Your task to perform on an android device: Search for Mexican restaurants on Maps Image 0: 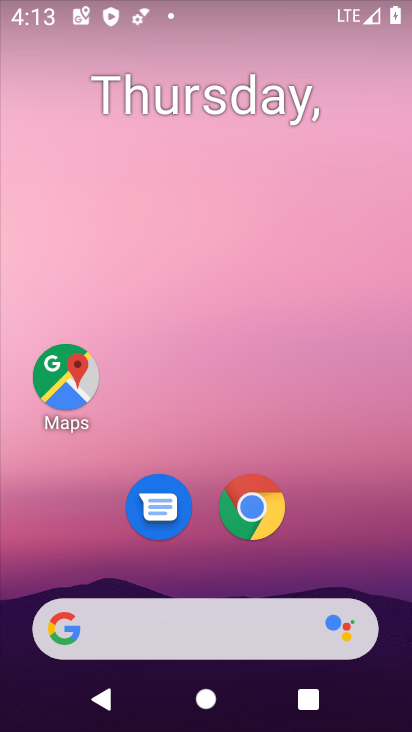
Step 0: press home button
Your task to perform on an android device: Search for Mexican restaurants on Maps Image 1: 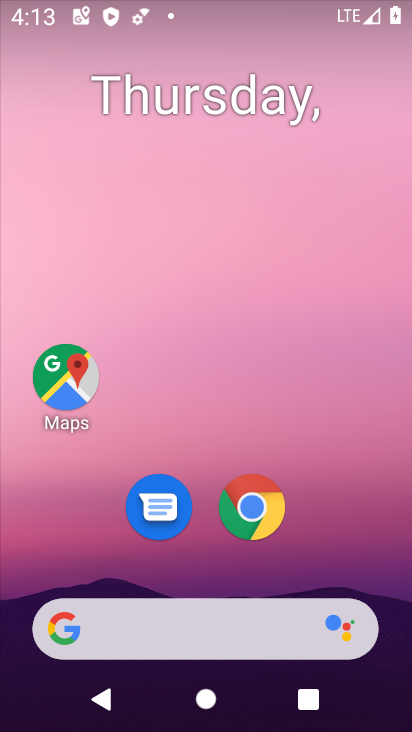
Step 1: click (51, 393)
Your task to perform on an android device: Search for Mexican restaurants on Maps Image 2: 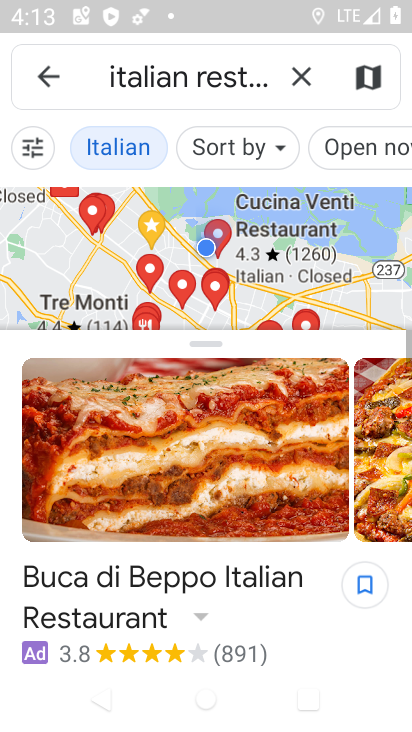
Step 2: click (52, 86)
Your task to perform on an android device: Search for Mexican restaurants on Maps Image 3: 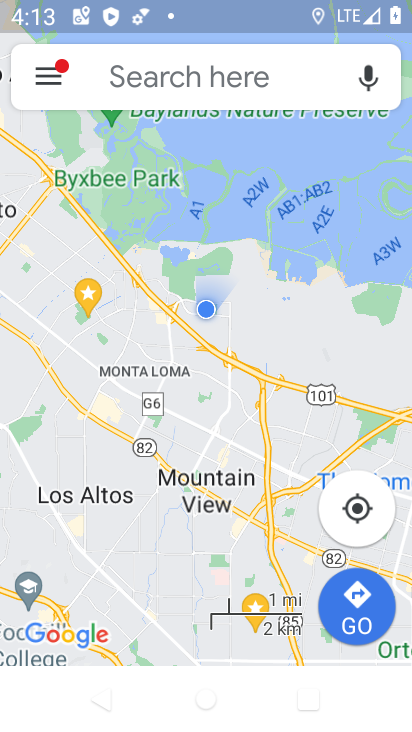
Step 3: click (168, 92)
Your task to perform on an android device: Search for Mexican restaurants on Maps Image 4: 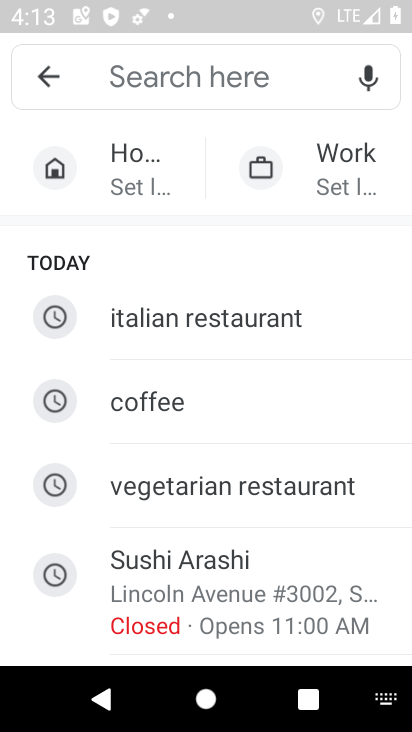
Step 4: type " Mexican restaurants"
Your task to perform on an android device: Search for Mexican restaurants on Maps Image 5: 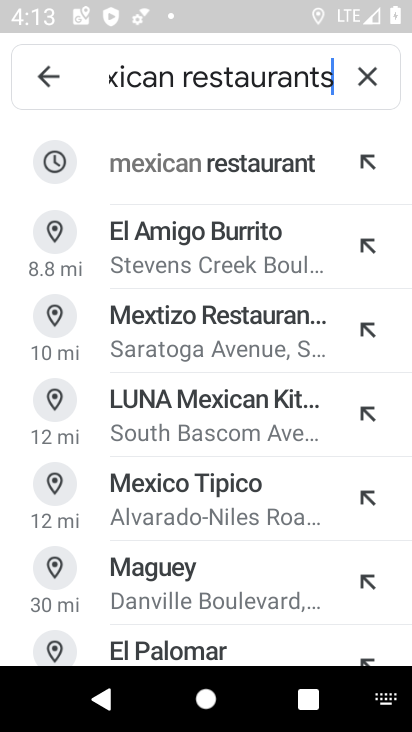
Step 5: click (319, 155)
Your task to perform on an android device: Search for Mexican restaurants on Maps Image 6: 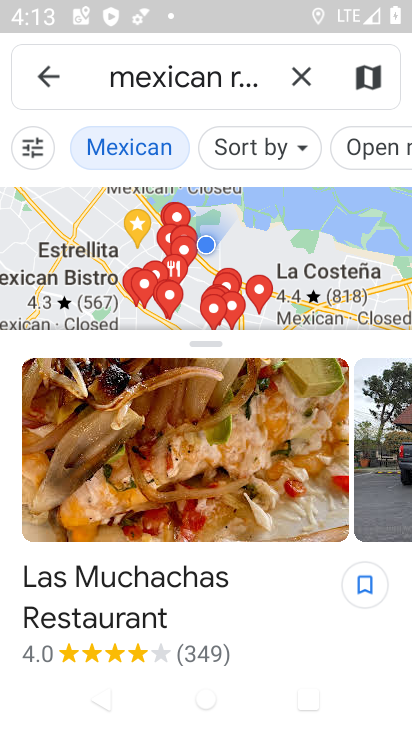
Step 6: task complete